Your task to perform on an android device: empty trash in the gmail app Image 0: 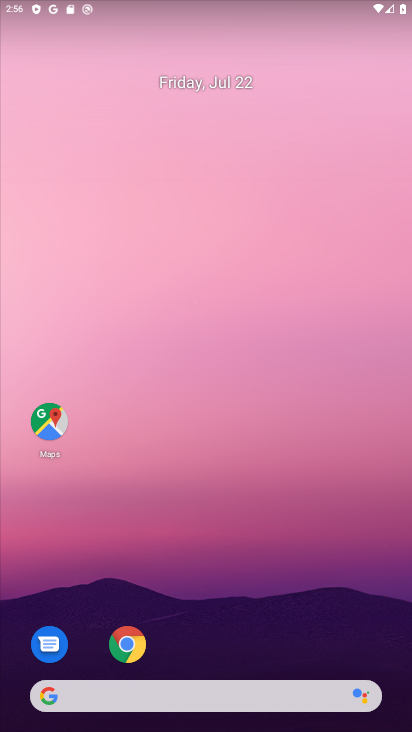
Step 0: drag from (271, 572) to (253, 299)
Your task to perform on an android device: empty trash in the gmail app Image 1: 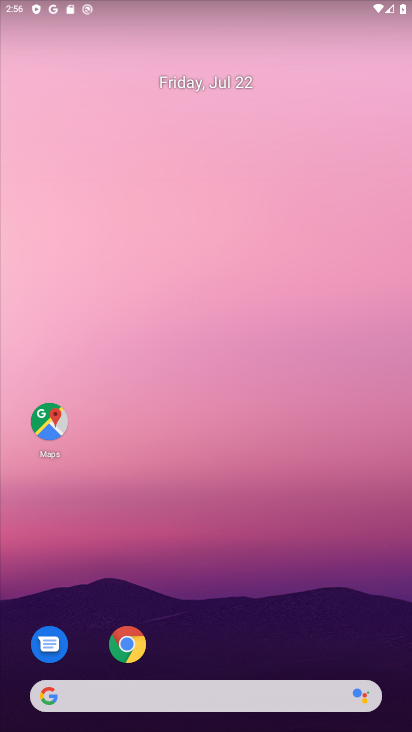
Step 1: drag from (262, 460) to (171, 98)
Your task to perform on an android device: empty trash in the gmail app Image 2: 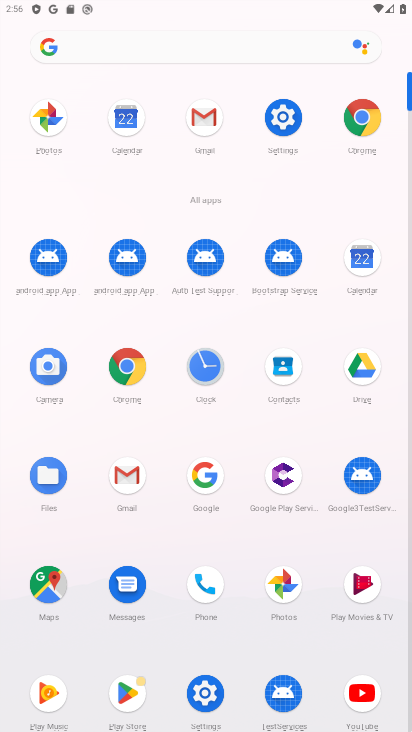
Step 2: click (130, 479)
Your task to perform on an android device: empty trash in the gmail app Image 3: 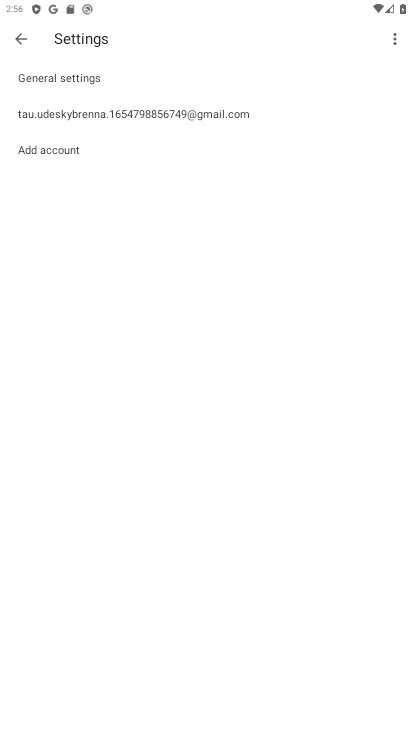
Step 3: click (17, 35)
Your task to perform on an android device: empty trash in the gmail app Image 4: 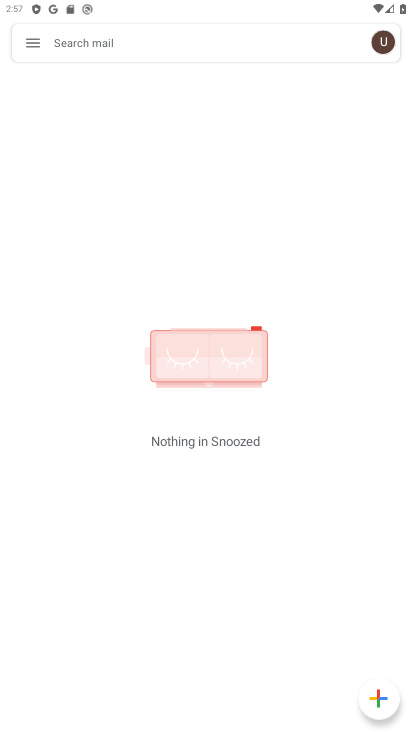
Step 4: click (26, 41)
Your task to perform on an android device: empty trash in the gmail app Image 5: 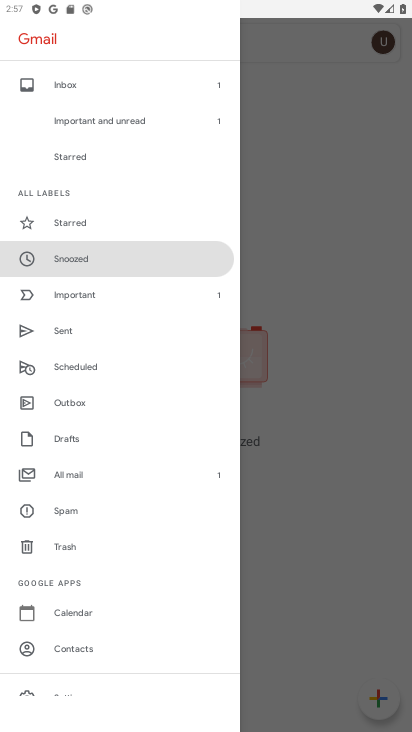
Step 5: click (51, 548)
Your task to perform on an android device: empty trash in the gmail app Image 6: 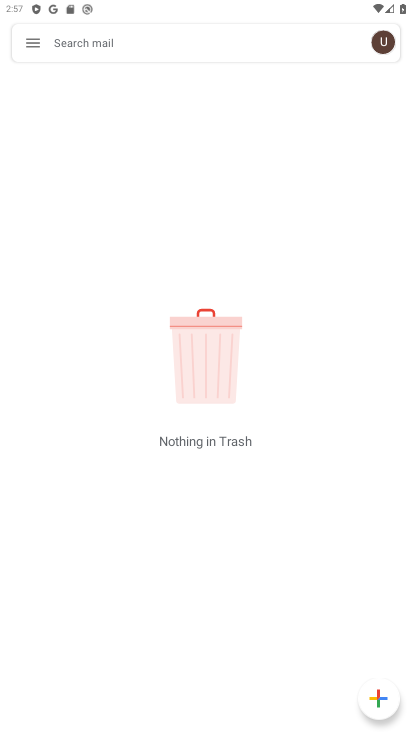
Step 6: task complete